Your task to perform on an android device: turn on javascript in the chrome app Image 0: 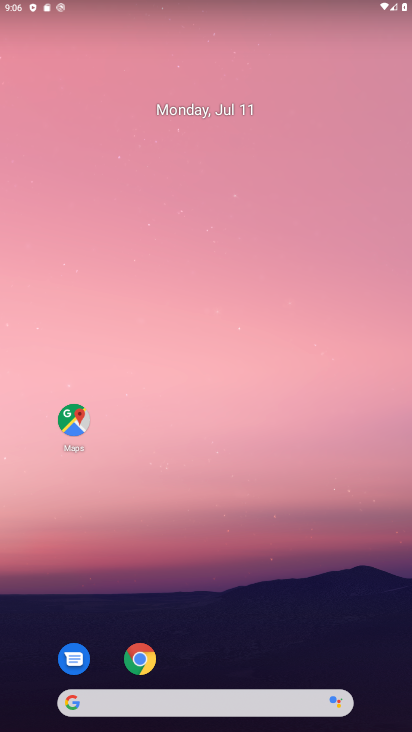
Step 0: drag from (313, 642) to (337, 66)
Your task to perform on an android device: turn on javascript in the chrome app Image 1: 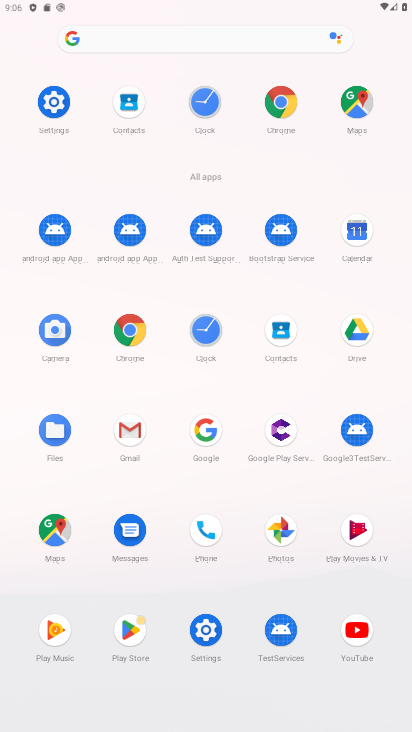
Step 1: click (135, 334)
Your task to perform on an android device: turn on javascript in the chrome app Image 2: 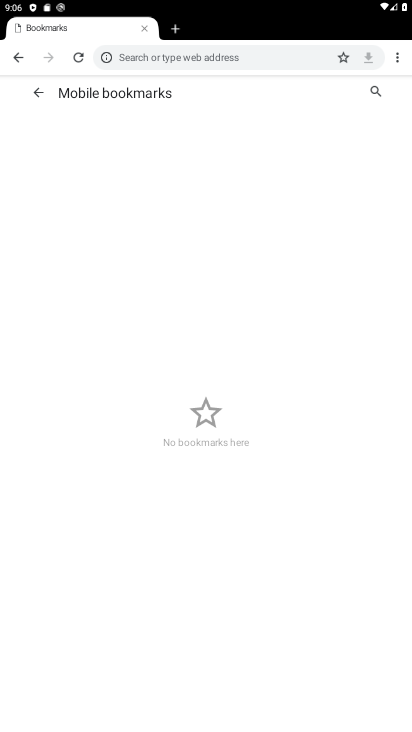
Step 2: click (395, 59)
Your task to perform on an android device: turn on javascript in the chrome app Image 3: 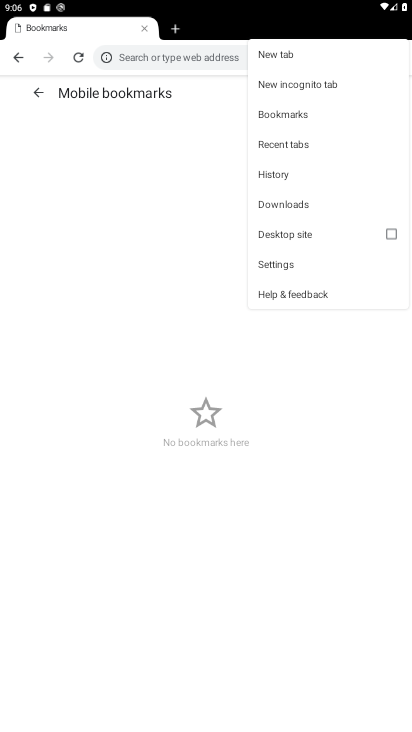
Step 3: click (291, 262)
Your task to perform on an android device: turn on javascript in the chrome app Image 4: 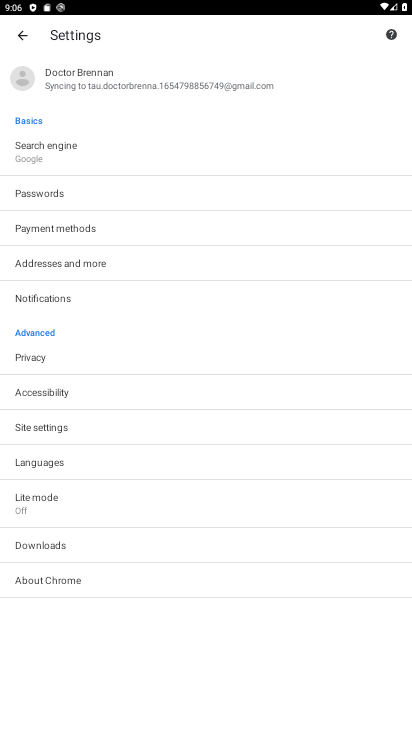
Step 4: click (153, 421)
Your task to perform on an android device: turn on javascript in the chrome app Image 5: 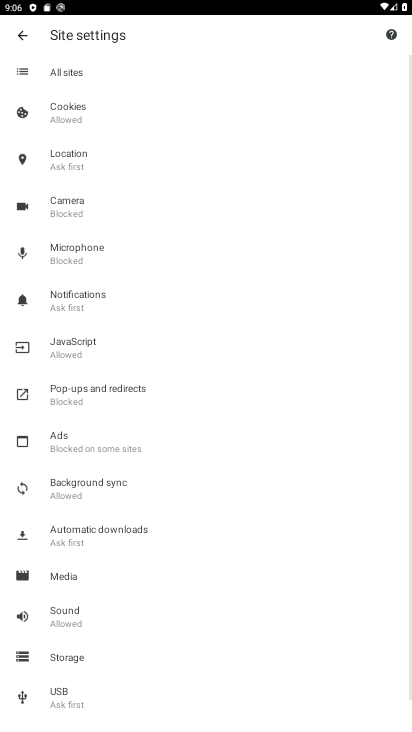
Step 5: drag from (305, 429) to (305, 332)
Your task to perform on an android device: turn on javascript in the chrome app Image 6: 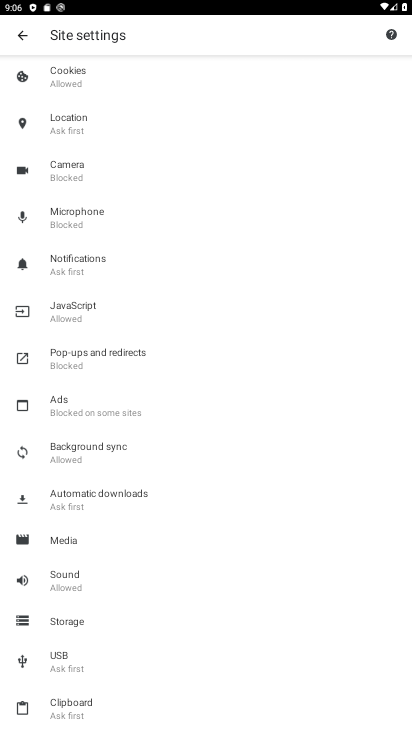
Step 6: click (125, 315)
Your task to perform on an android device: turn on javascript in the chrome app Image 7: 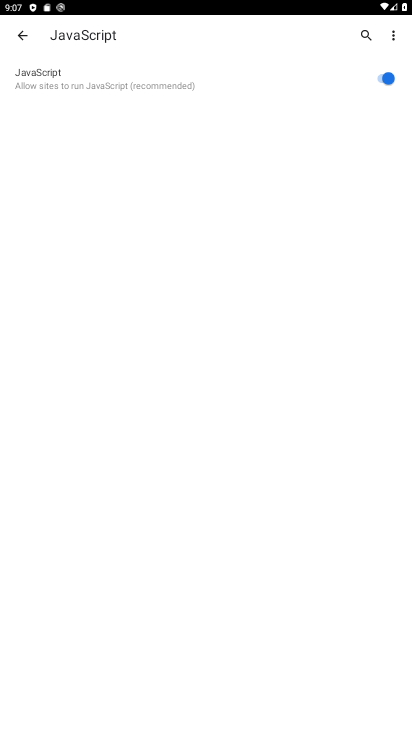
Step 7: task complete